Your task to perform on an android device: uninstall "Speedtest by Ookla" Image 0: 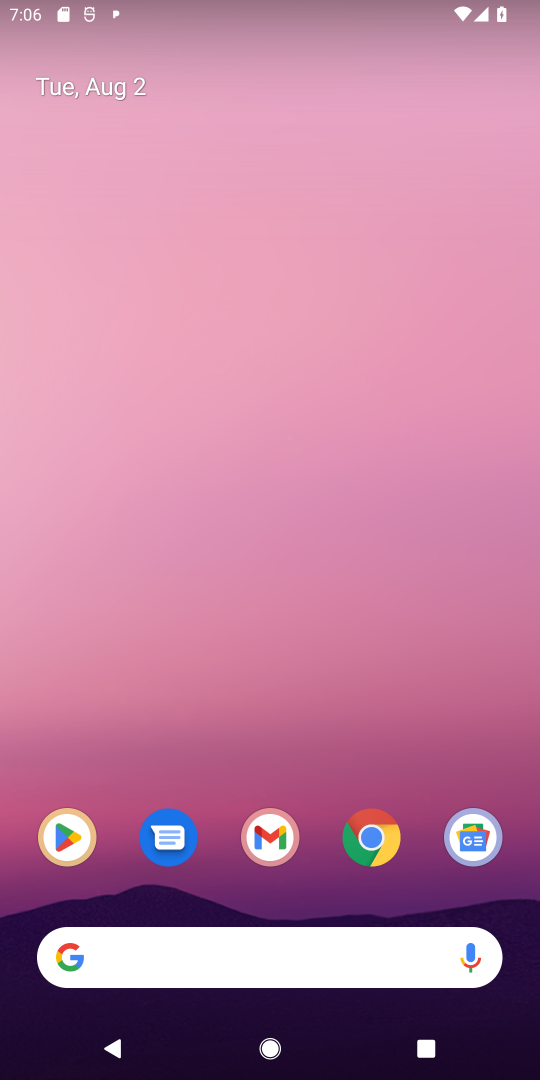
Step 0: click (66, 838)
Your task to perform on an android device: uninstall "Speedtest by Ookla" Image 1: 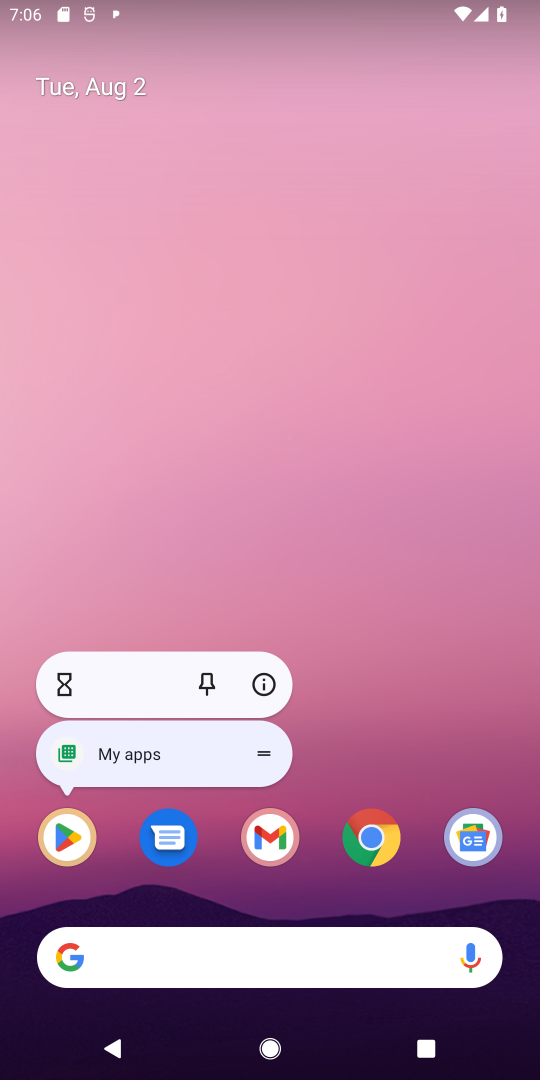
Step 1: click (66, 838)
Your task to perform on an android device: uninstall "Speedtest by Ookla" Image 2: 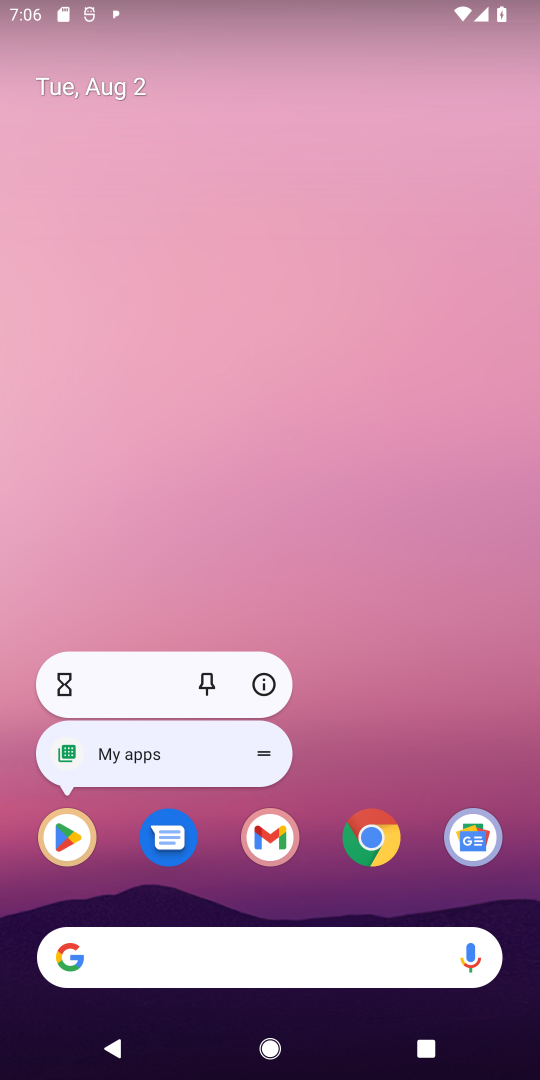
Step 2: click (66, 838)
Your task to perform on an android device: uninstall "Speedtest by Ookla" Image 3: 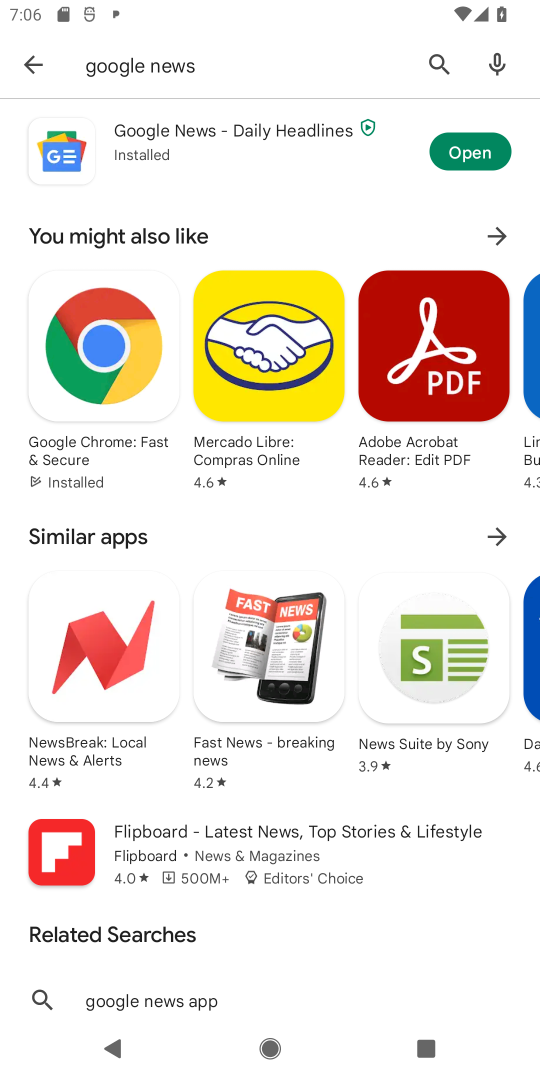
Step 3: click (437, 65)
Your task to perform on an android device: uninstall "Speedtest by Ookla" Image 4: 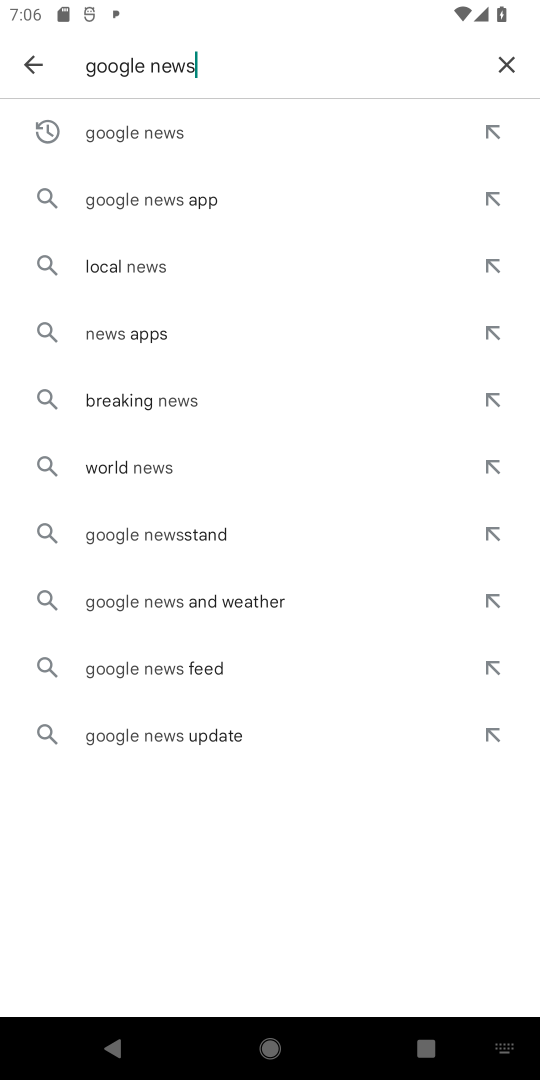
Step 4: click (497, 64)
Your task to perform on an android device: uninstall "Speedtest by Ookla" Image 5: 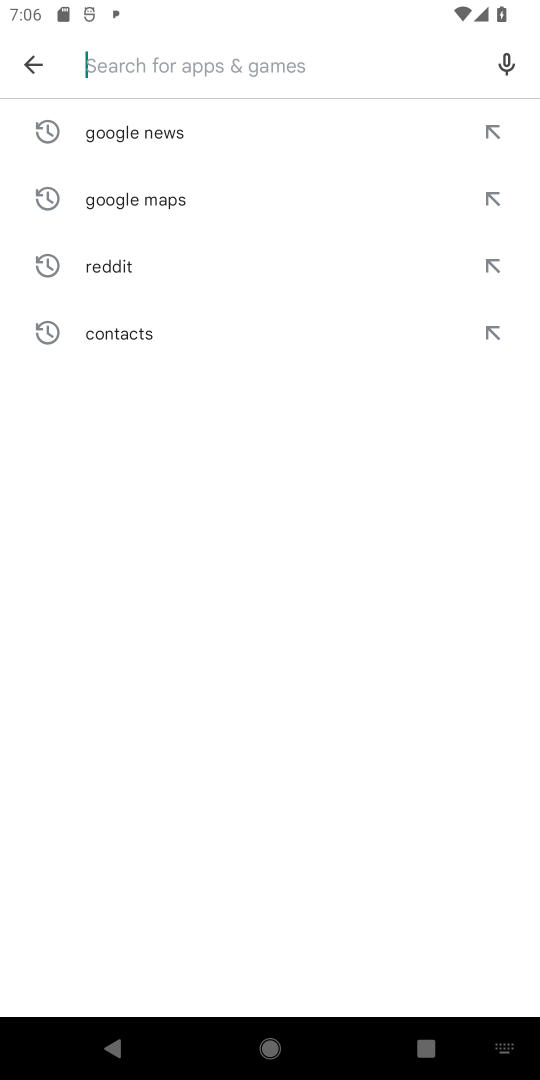
Step 5: type "Speedtest by Ookla"
Your task to perform on an android device: uninstall "Speedtest by Ookla" Image 6: 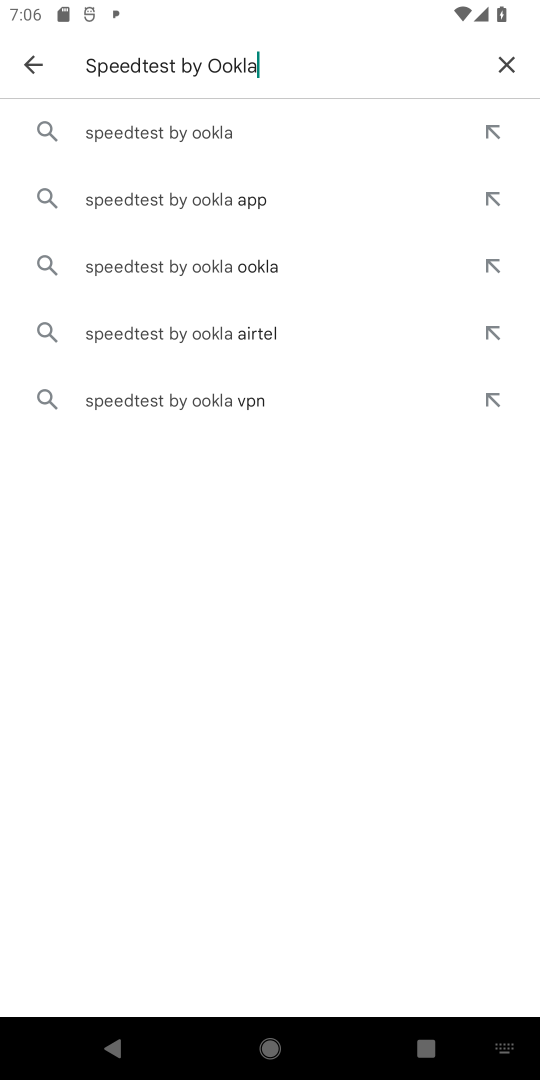
Step 6: click (172, 127)
Your task to perform on an android device: uninstall "Speedtest by Ookla" Image 7: 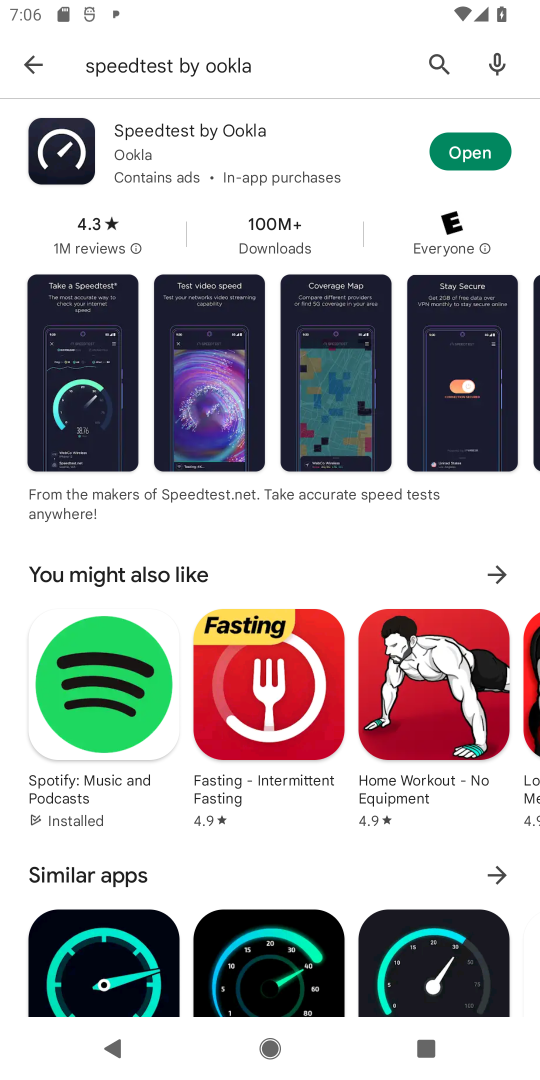
Step 7: click (118, 144)
Your task to perform on an android device: uninstall "Speedtest by Ookla" Image 8: 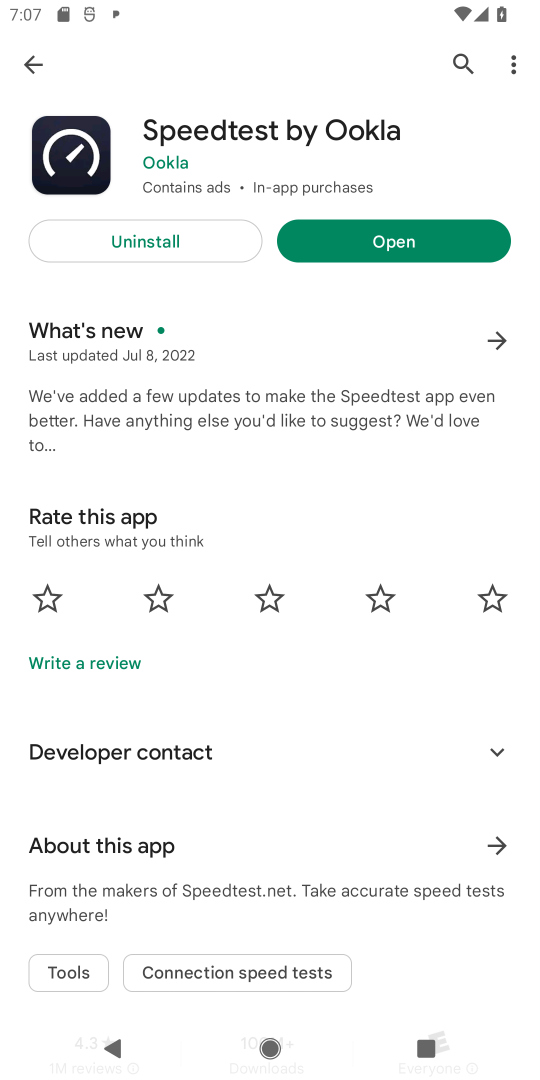
Step 8: click (180, 243)
Your task to perform on an android device: uninstall "Speedtest by Ookla" Image 9: 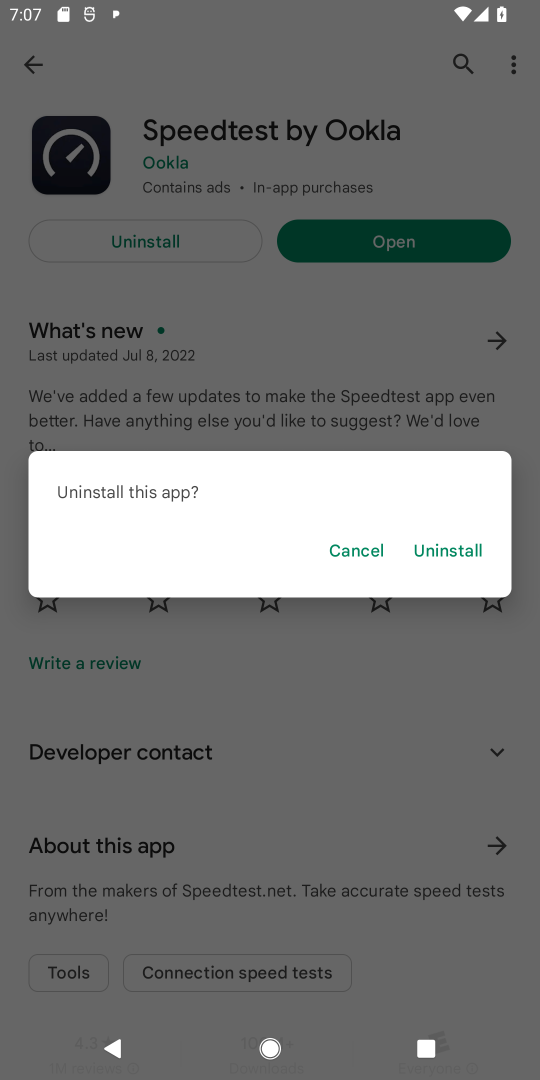
Step 9: click (438, 555)
Your task to perform on an android device: uninstall "Speedtest by Ookla" Image 10: 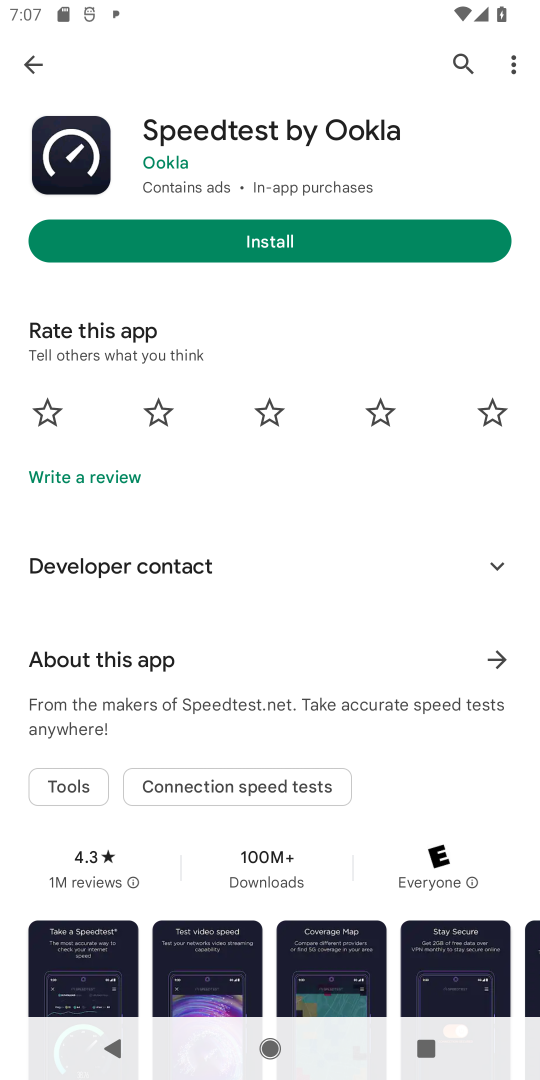
Step 10: task complete